Your task to perform on an android device: Open settings on Google Maps Image 0: 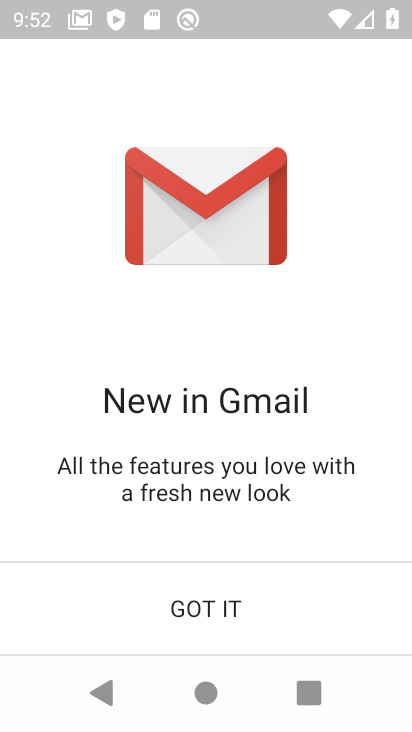
Step 0: press home button
Your task to perform on an android device: Open settings on Google Maps Image 1: 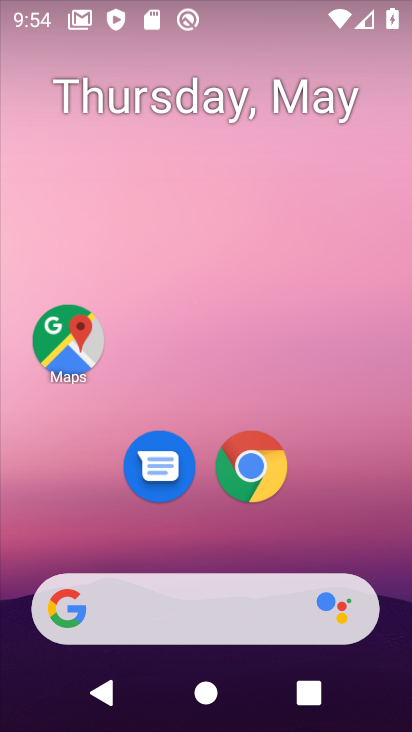
Step 1: drag from (333, 535) to (292, 53)
Your task to perform on an android device: Open settings on Google Maps Image 2: 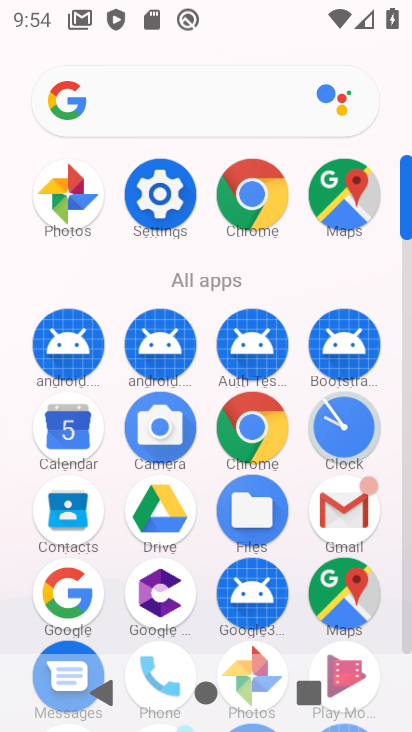
Step 2: click (337, 584)
Your task to perform on an android device: Open settings on Google Maps Image 3: 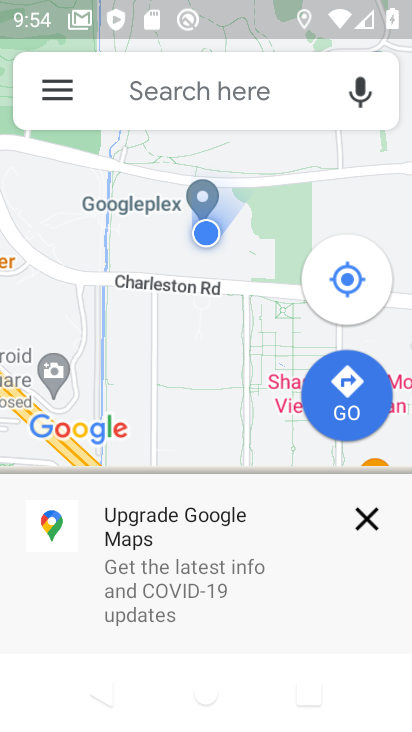
Step 3: click (59, 107)
Your task to perform on an android device: Open settings on Google Maps Image 4: 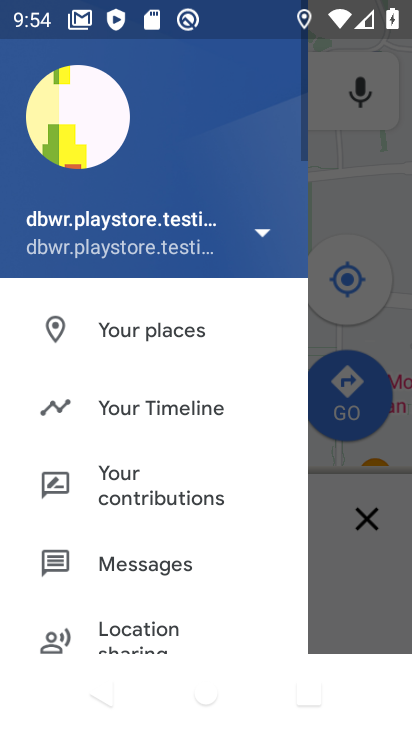
Step 4: drag from (151, 614) to (167, 4)
Your task to perform on an android device: Open settings on Google Maps Image 5: 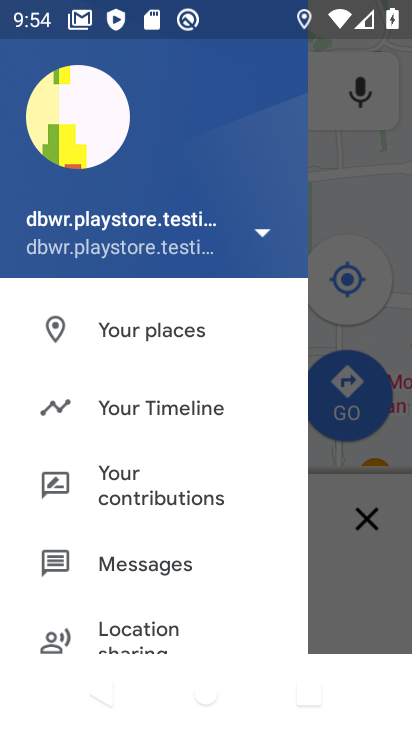
Step 5: drag from (115, 477) to (168, 54)
Your task to perform on an android device: Open settings on Google Maps Image 6: 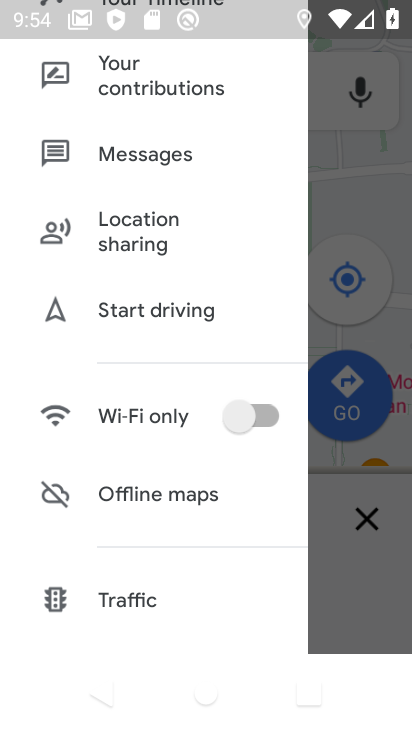
Step 6: drag from (119, 575) to (157, 89)
Your task to perform on an android device: Open settings on Google Maps Image 7: 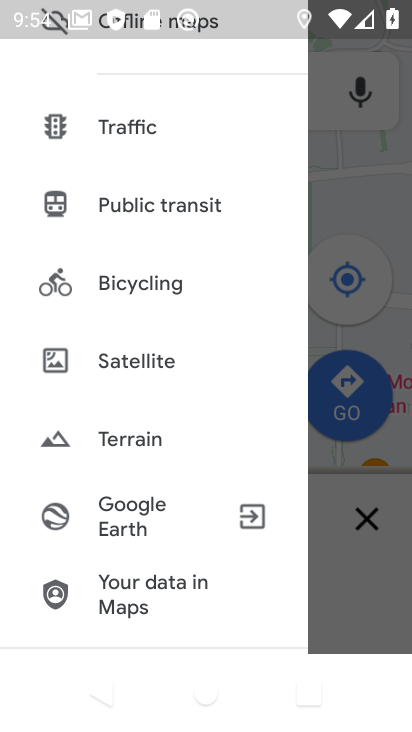
Step 7: drag from (143, 532) to (179, 54)
Your task to perform on an android device: Open settings on Google Maps Image 8: 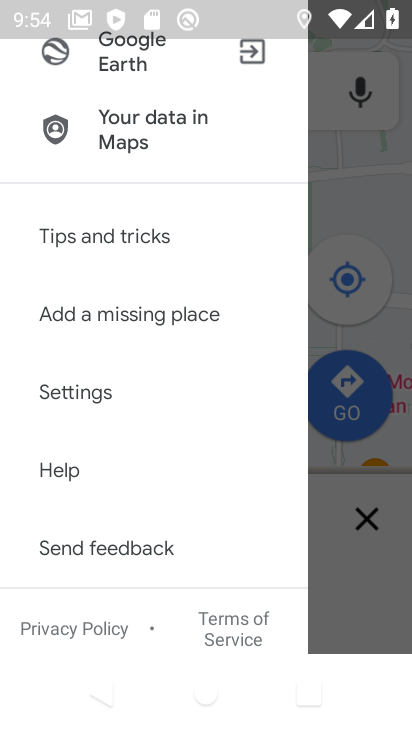
Step 8: click (99, 404)
Your task to perform on an android device: Open settings on Google Maps Image 9: 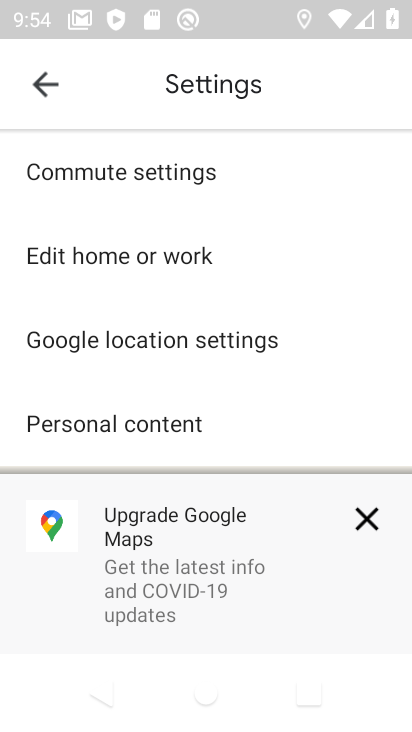
Step 9: task complete